Your task to perform on an android device: turn off wifi Image 0: 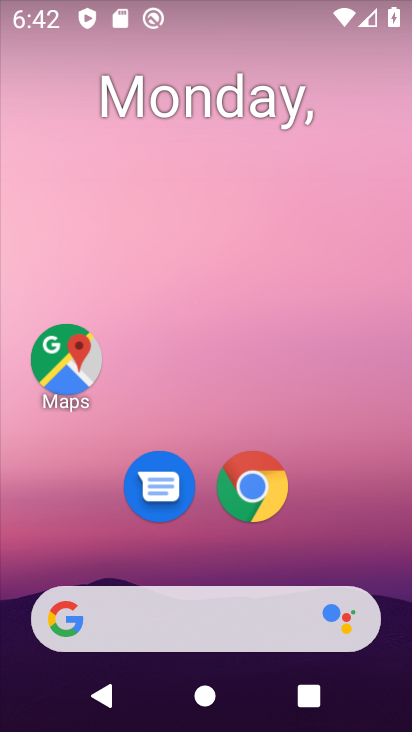
Step 0: drag from (329, 540) to (255, 73)
Your task to perform on an android device: turn off wifi Image 1: 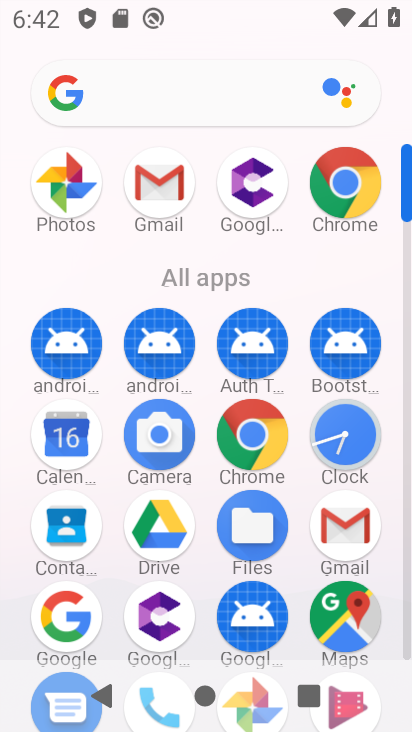
Step 1: drag from (215, 557) to (198, 232)
Your task to perform on an android device: turn off wifi Image 2: 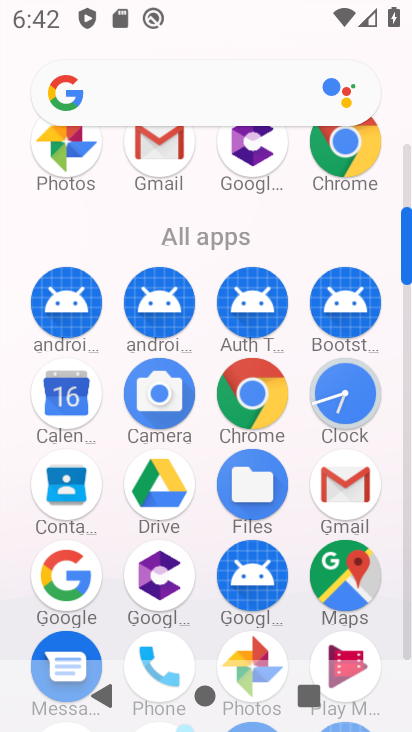
Step 2: drag from (200, 524) to (200, 131)
Your task to perform on an android device: turn off wifi Image 3: 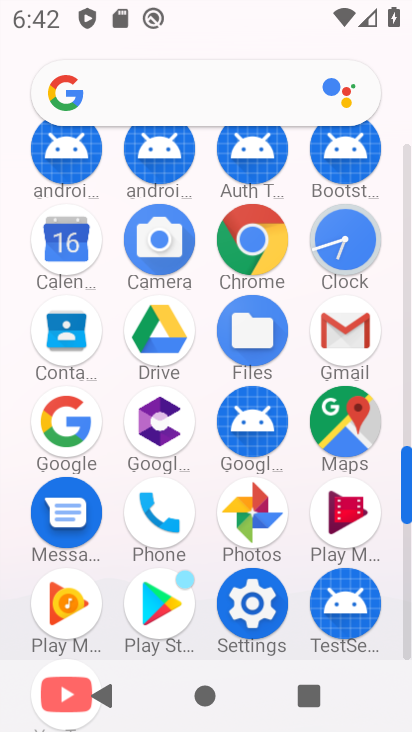
Step 3: click (254, 593)
Your task to perform on an android device: turn off wifi Image 4: 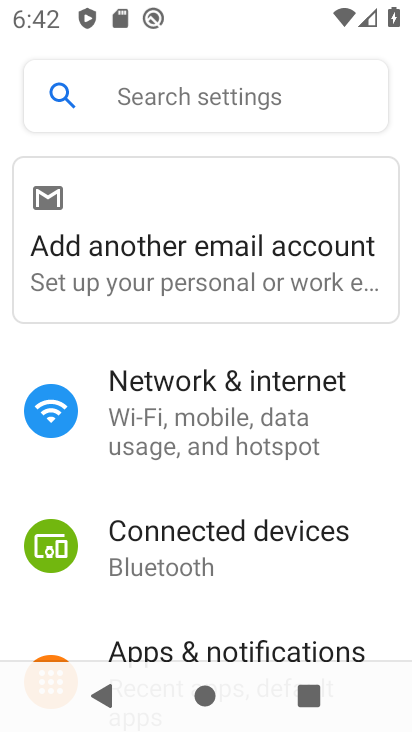
Step 4: click (162, 389)
Your task to perform on an android device: turn off wifi Image 5: 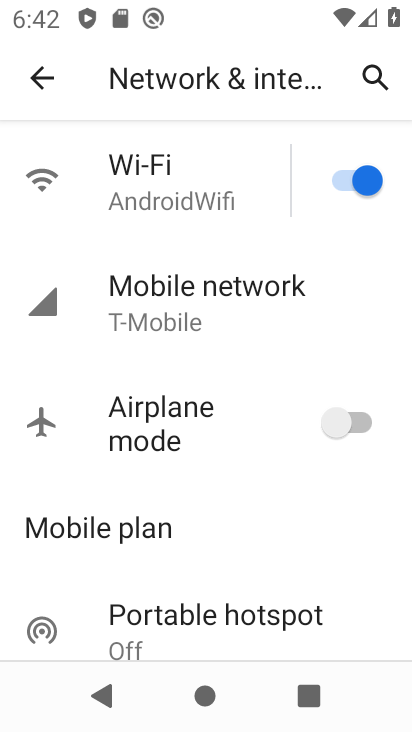
Step 5: click (352, 184)
Your task to perform on an android device: turn off wifi Image 6: 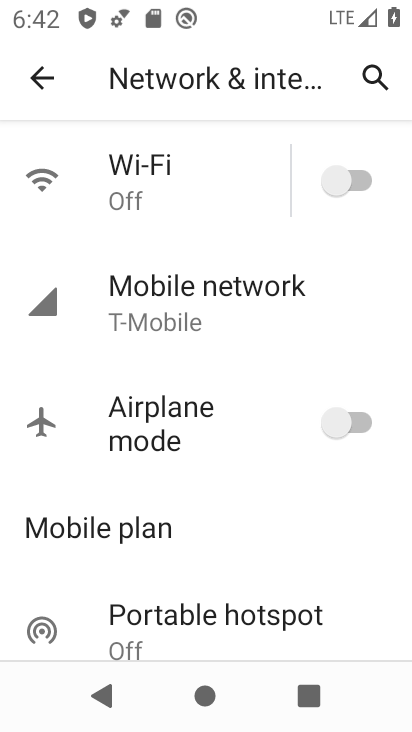
Step 6: task complete